Your task to perform on an android device: Turn on the flashlight Image 0: 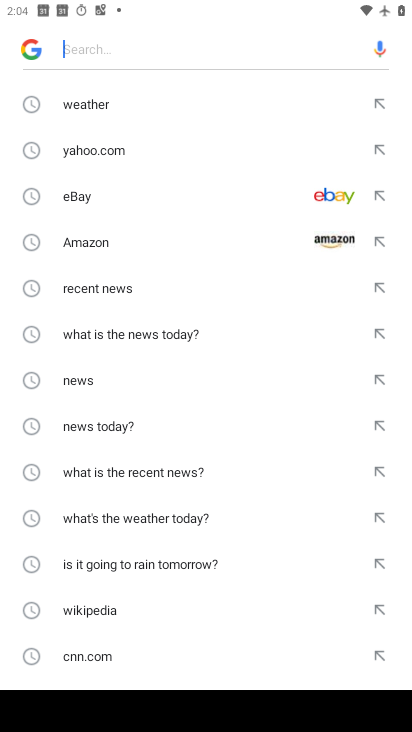
Step 0: press home button
Your task to perform on an android device: Turn on the flashlight Image 1: 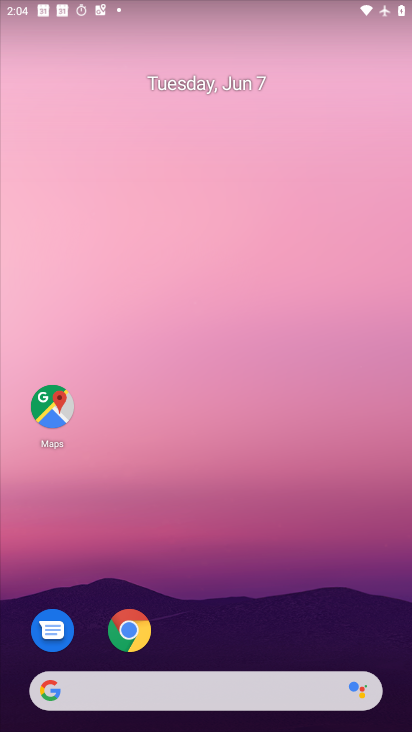
Step 1: drag from (376, 661) to (227, 39)
Your task to perform on an android device: Turn on the flashlight Image 2: 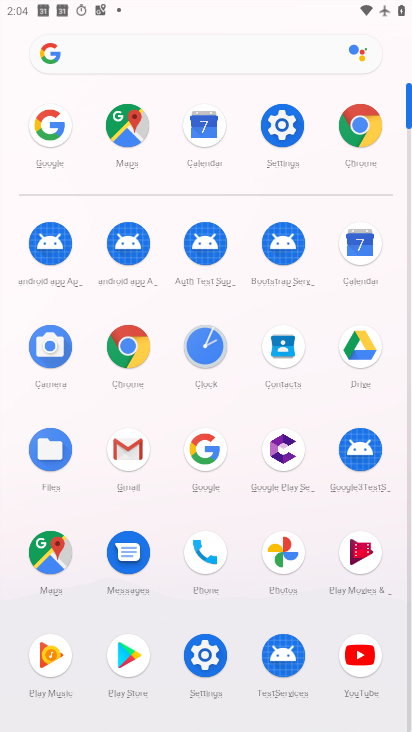
Step 2: click (293, 141)
Your task to perform on an android device: Turn on the flashlight Image 3: 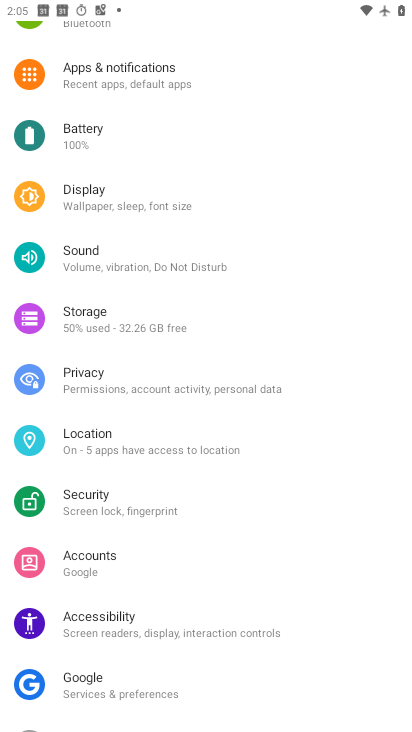
Step 3: task complete